Your task to perform on an android device: Go to calendar. Show me events next week Image 0: 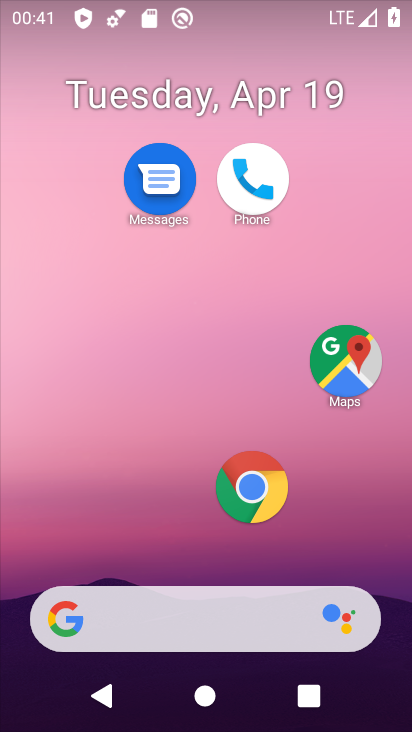
Step 0: drag from (119, 309) to (224, 5)
Your task to perform on an android device: Go to calendar. Show me events next week Image 1: 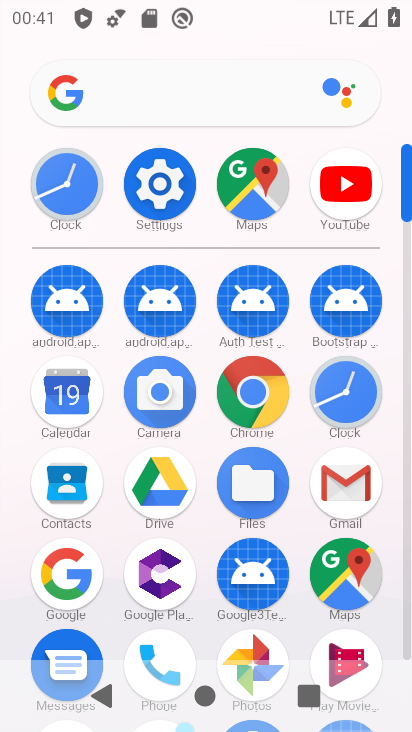
Step 1: drag from (161, 217) to (173, 4)
Your task to perform on an android device: Go to calendar. Show me events next week Image 2: 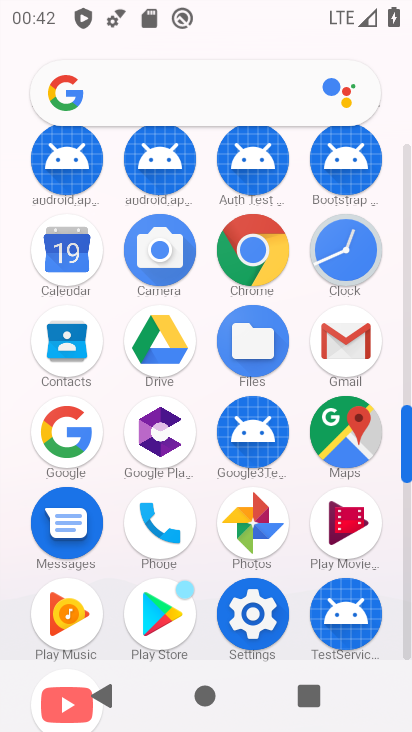
Step 2: click (54, 260)
Your task to perform on an android device: Go to calendar. Show me events next week Image 3: 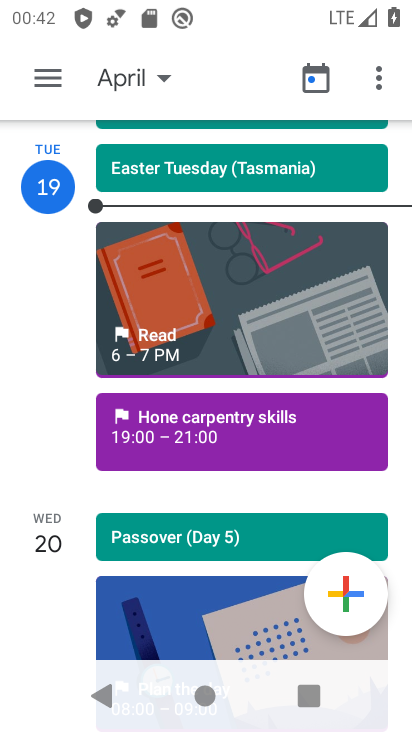
Step 3: click (35, 83)
Your task to perform on an android device: Go to calendar. Show me events next week Image 4: 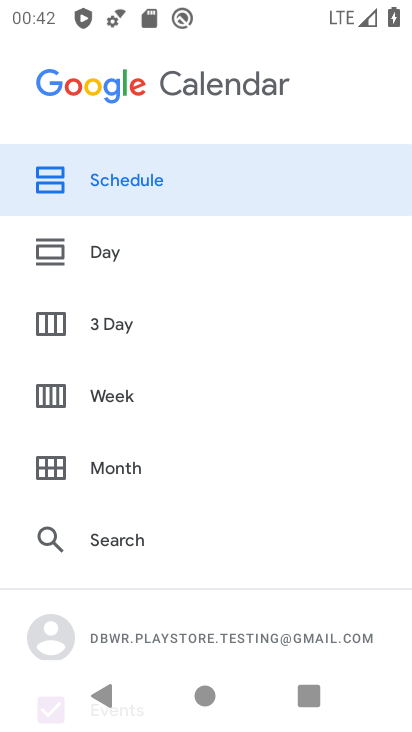
Step 4: click (130, 396)
Your task to perform on an android device: Go to calendar. Show me events next week Image 5: 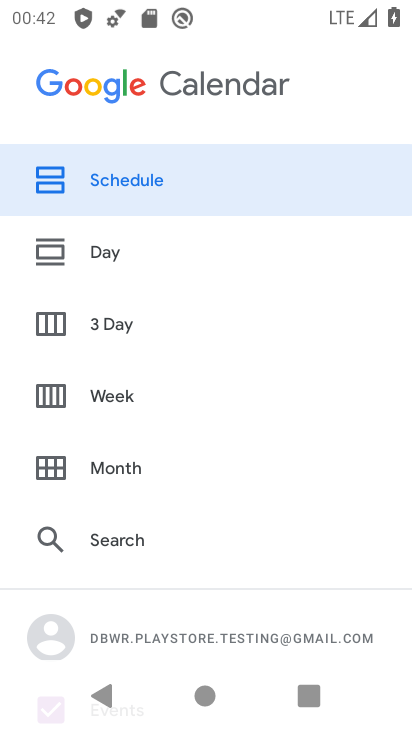
Step 5: click (111, 396)
Your task to perform on an android device: Go to calendar. Show me events next week Image 6: 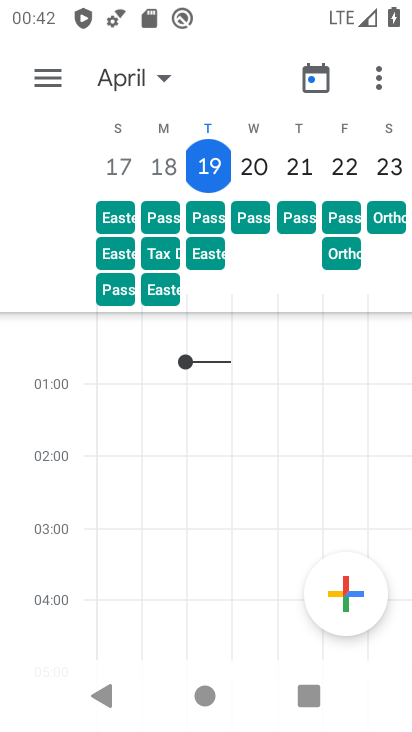
Step 6: click (158, 74)
Your task to perform on an android device: Go to calendar. Show me events next week Image 7: 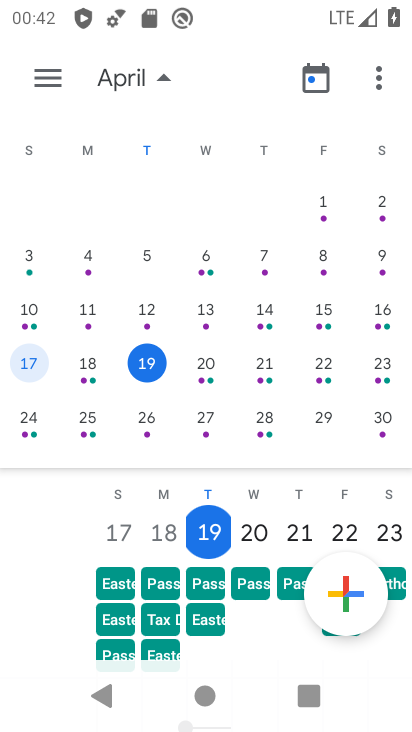
Step 7: click (148, 420)
Your task to perform on an android device: Go to calendar. Show me events next week Image 8: 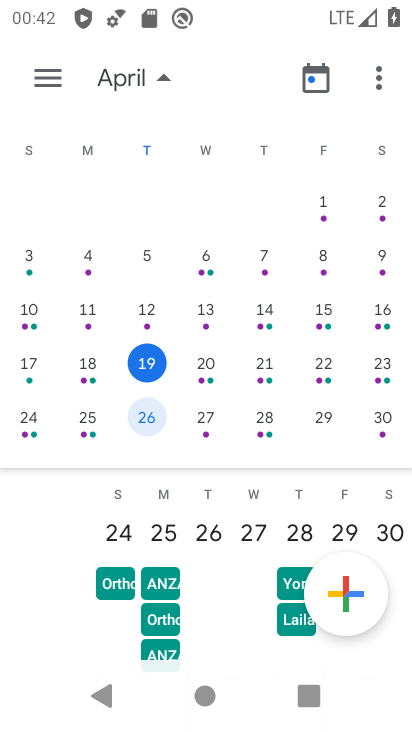
Step 8: task complete